Your task to perform on an android device: Open ESPN.com Image 0: 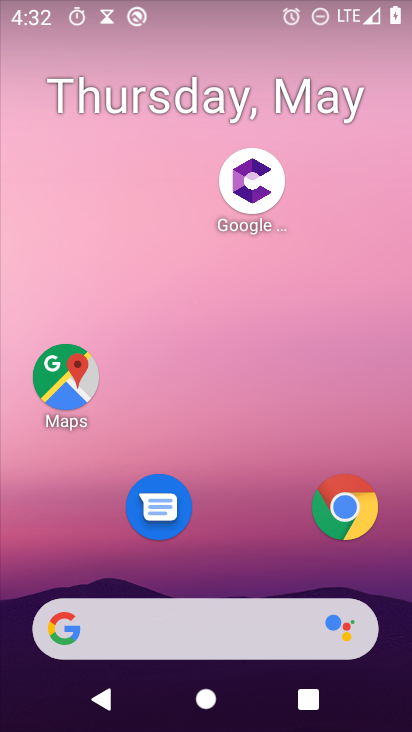
Step 0: click (213, 629)
Your task to perform on an android device: Open ESPN.com Image 1: 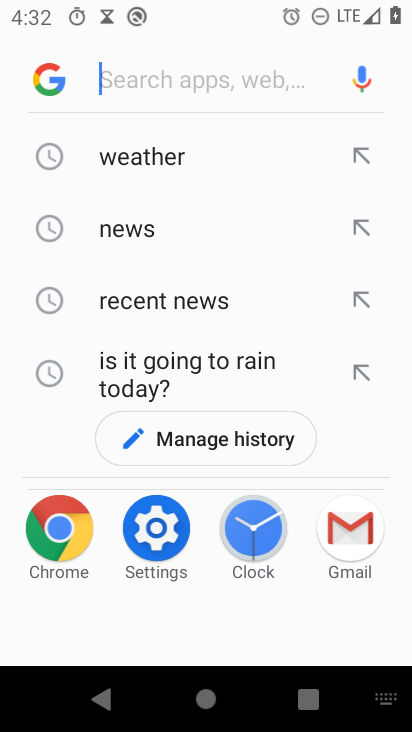
Step 1: type "ESPN.com"
Your task to perform on an android device: Open ESPN.com Image 2: 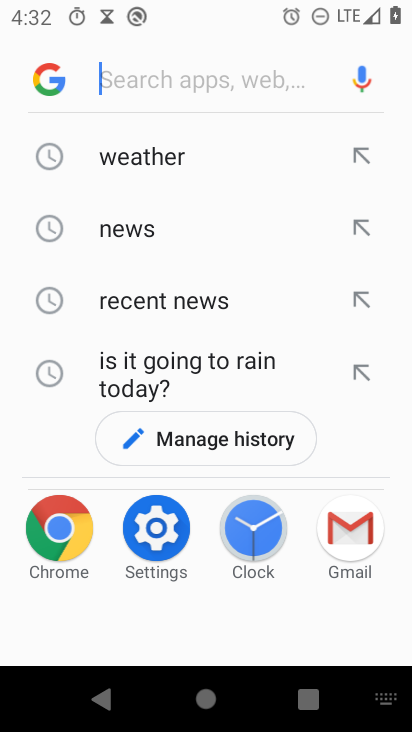
Step 2: click (204, 86)
Your task to perform on an android device: Open ESPN.com Image 3: 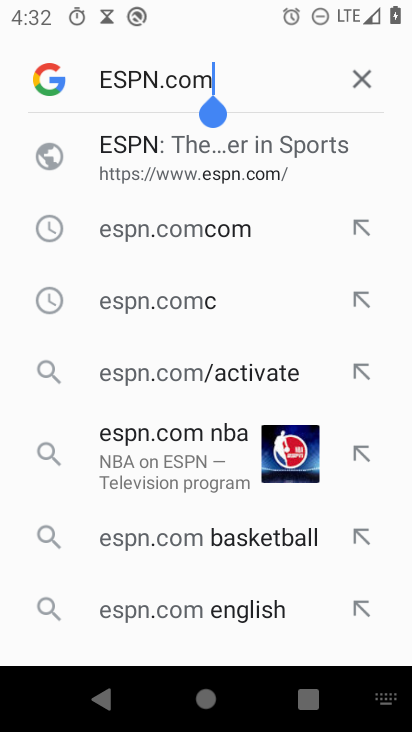
Step 3: click (181, 164)
Your task to perform on an android device: Open ESPN.com Image 4: 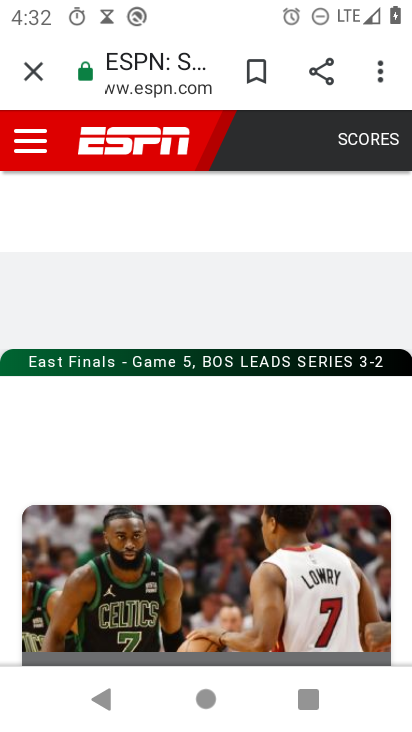
Step 4: task complete